Your task to perform on an android device: install app "TextNow: Call + Text Unlimited" Image 0: 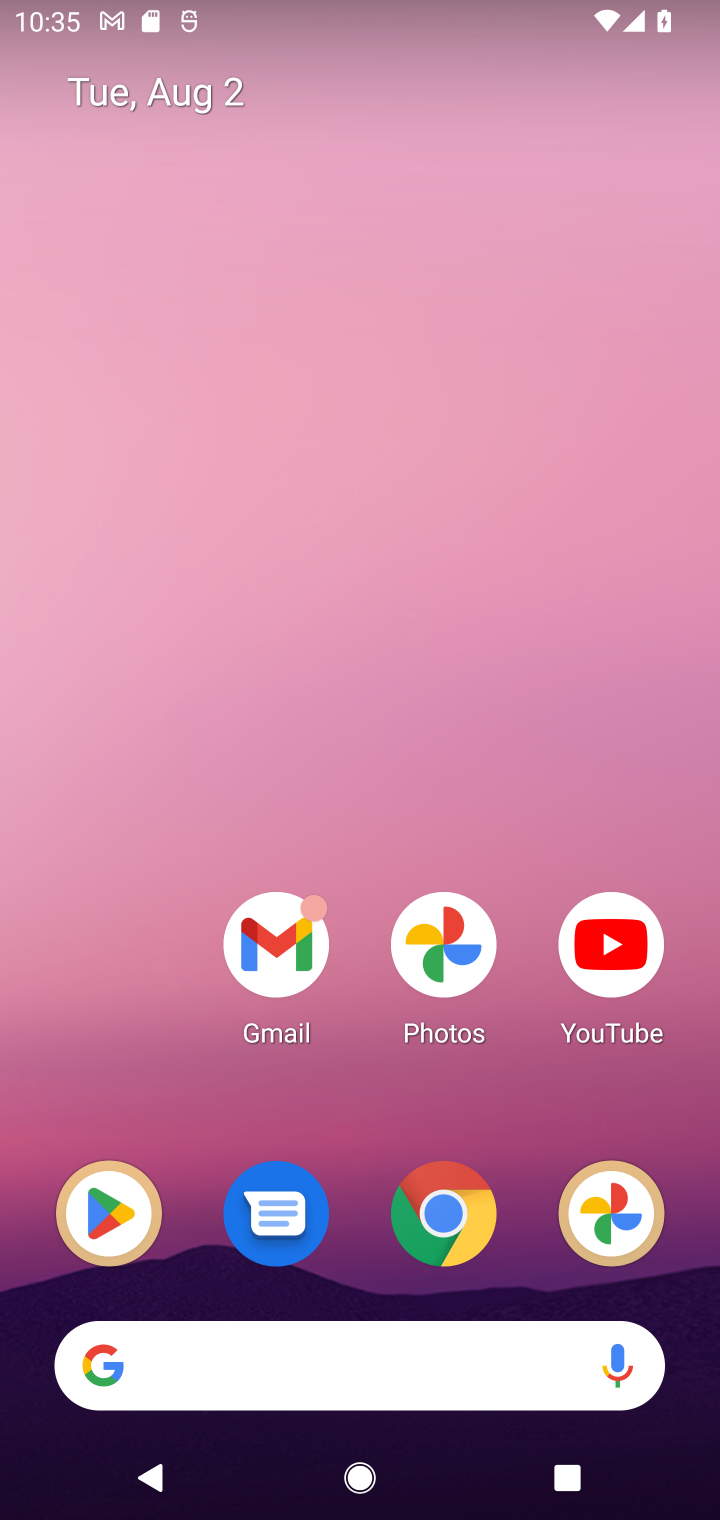
Step 0: click (117, 1190)
Your task to perform on an android device: install app "TextNow: Call + Text Unlimited" Image 1: 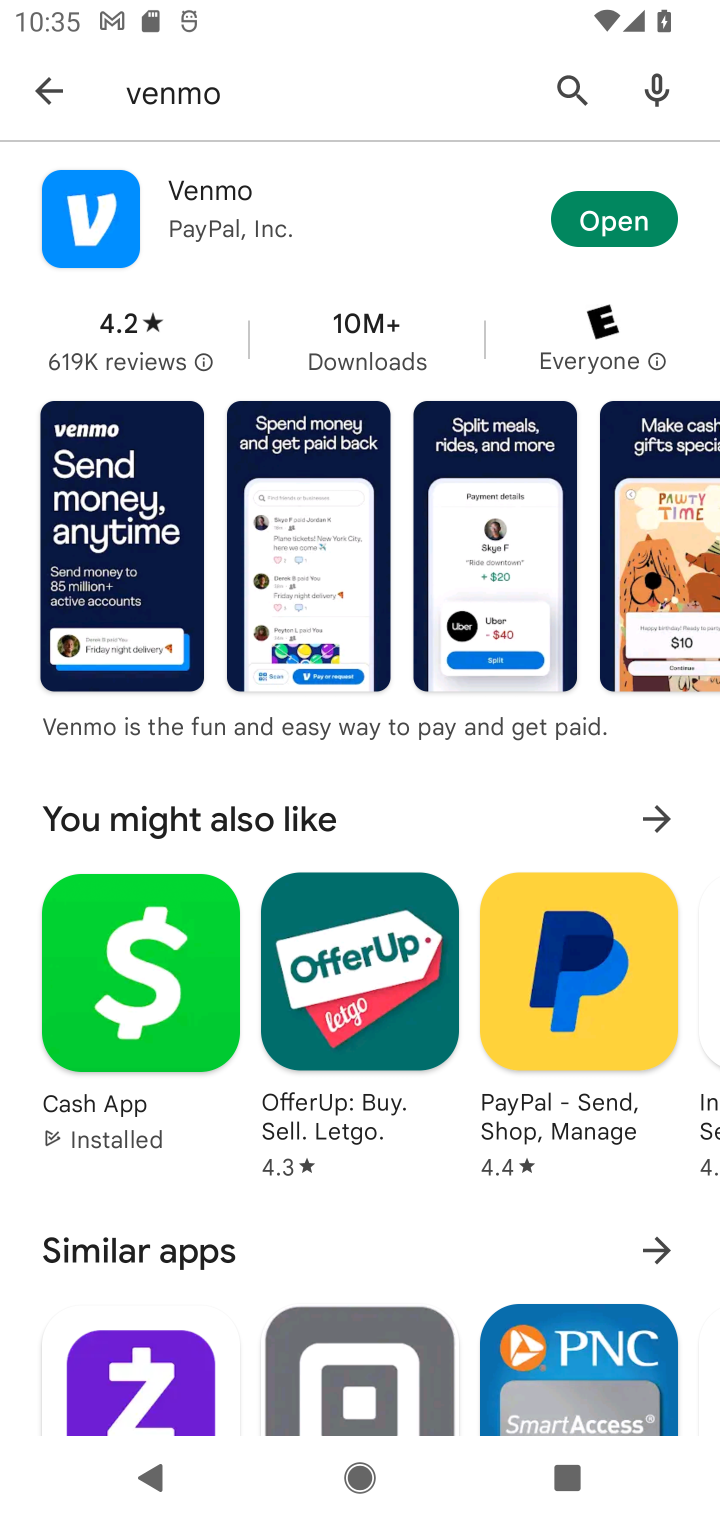
Step 1: click (44, 84)
Your task to perform on an android device: install app "TextNow: Call + Text Unlimited" Image 2: 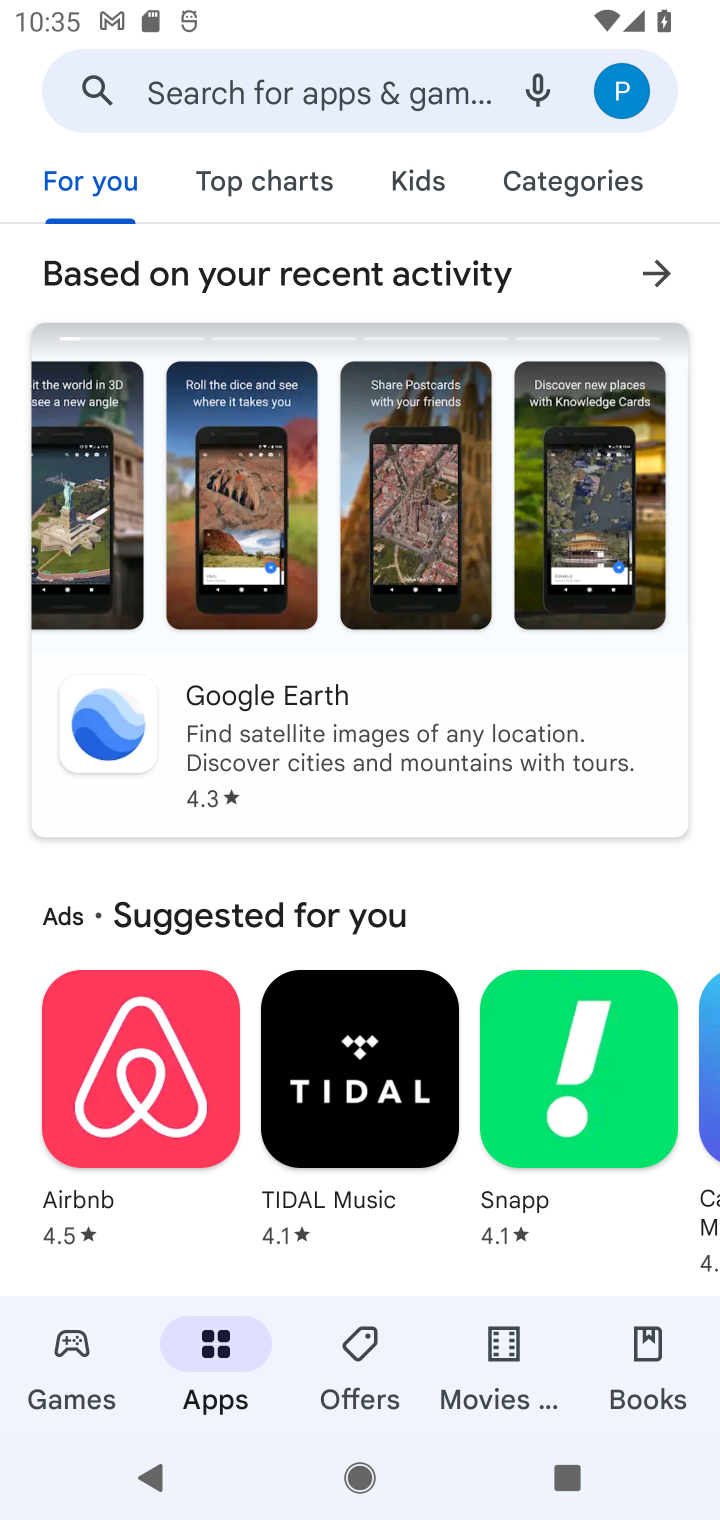
Step 2: click (211, 84)
Your task to perform on an android device: install app "TextNow: Call + Text Unlimited" Image 3: 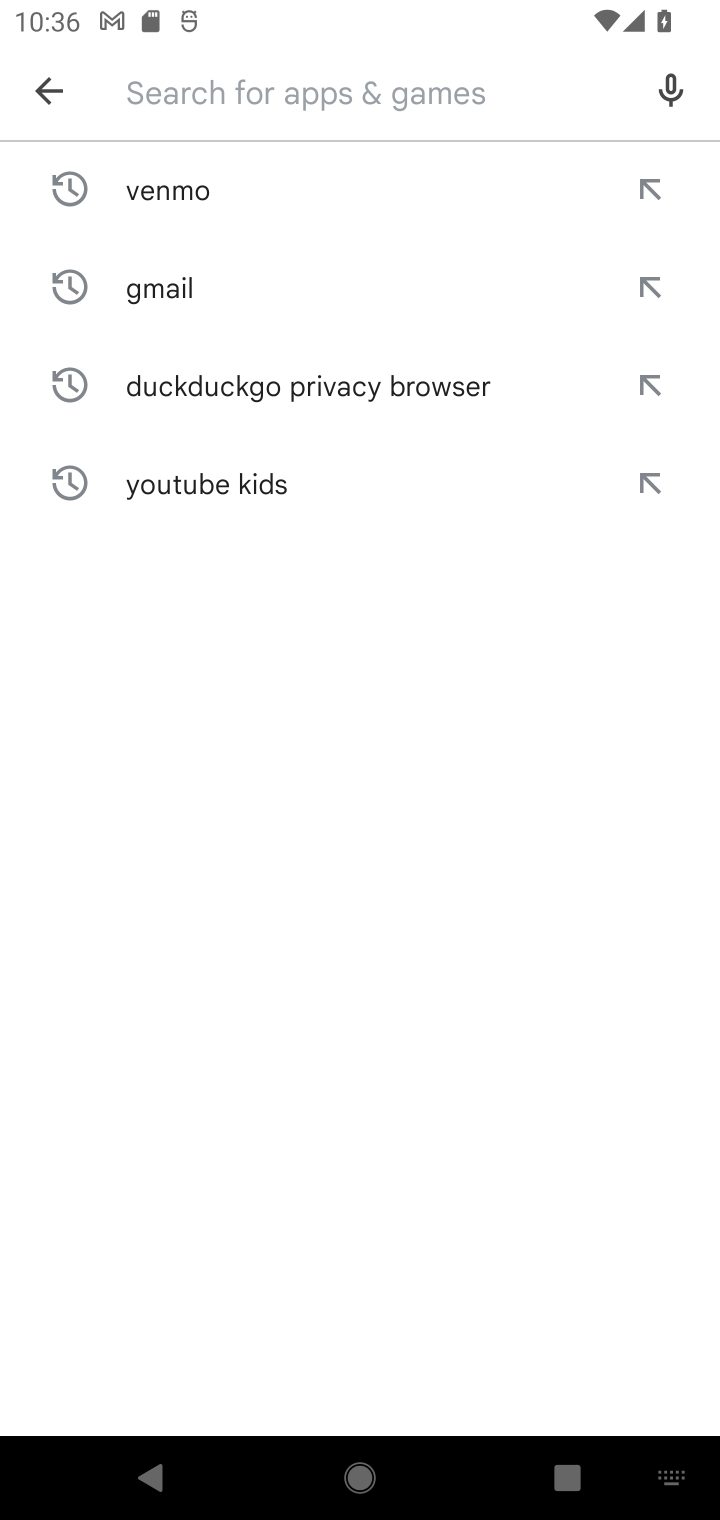
Step 3: type "TextNow: Call + Text Unlimited"
Your task to perform on an android device: install app "TextNow: Call + Text Unlimited" Image 4: 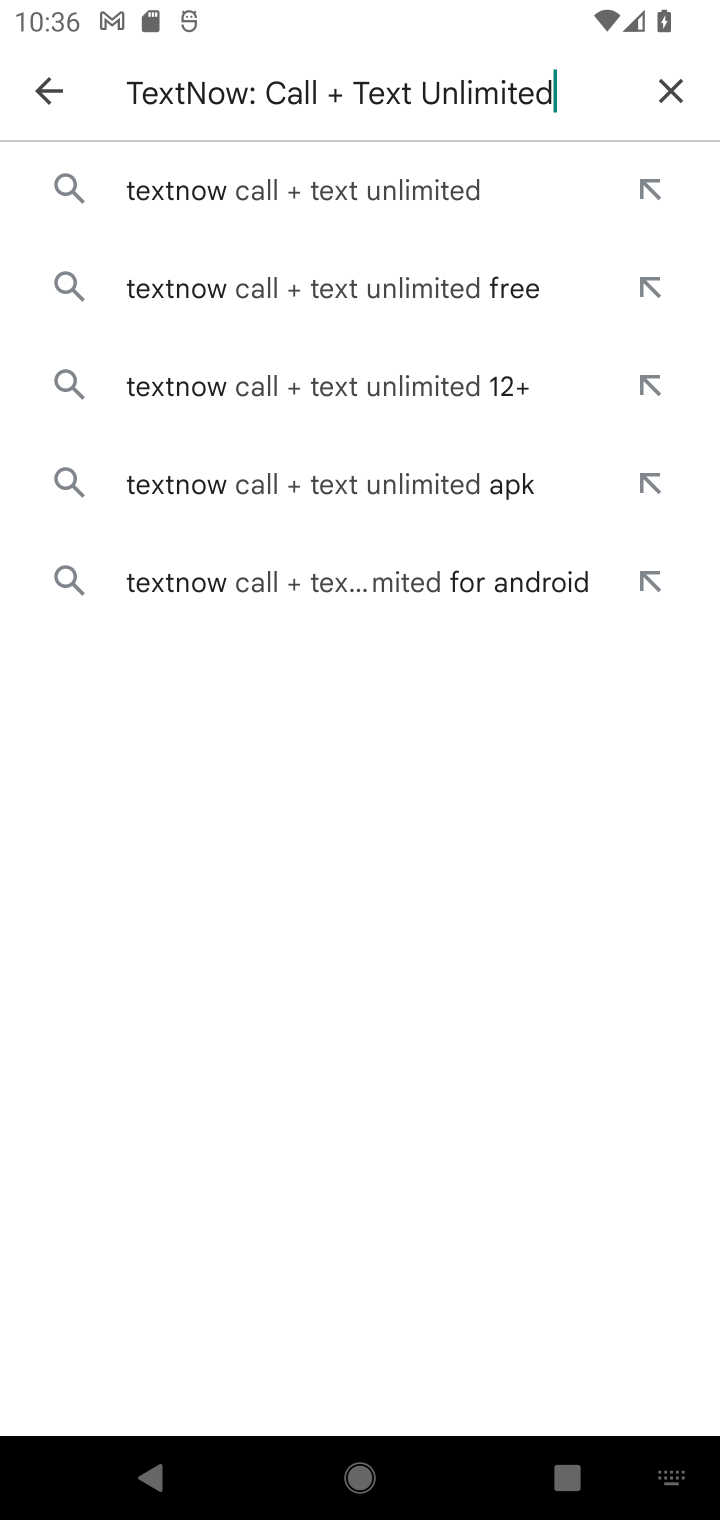
Step 4: click (259, 192)
Your task to perform on an android device: install app "TextNow: Call + Text Unlimited" Image 5: 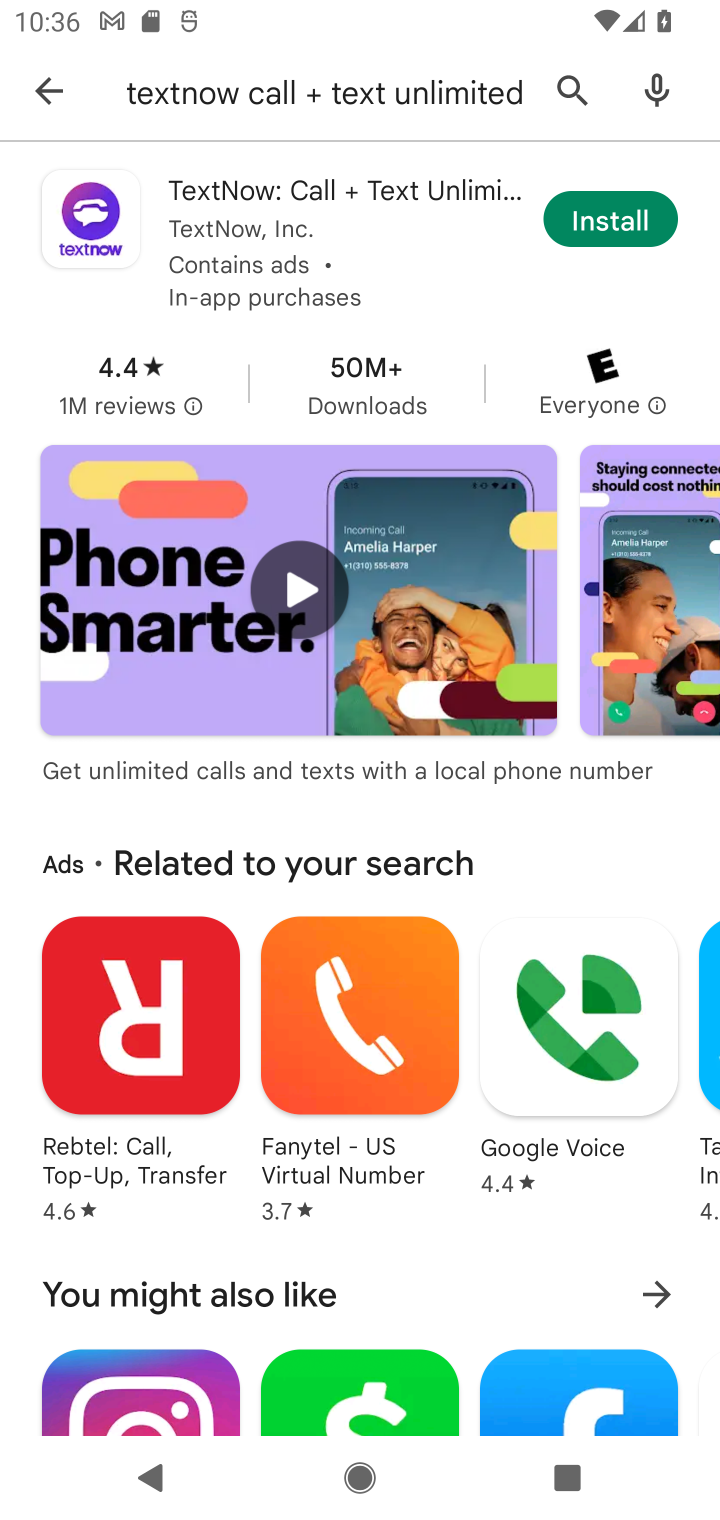
Step 5: click (603, 218)
Your task to perform on an android device: install app "TextNow: Call + Text Unlimited" Image 6: 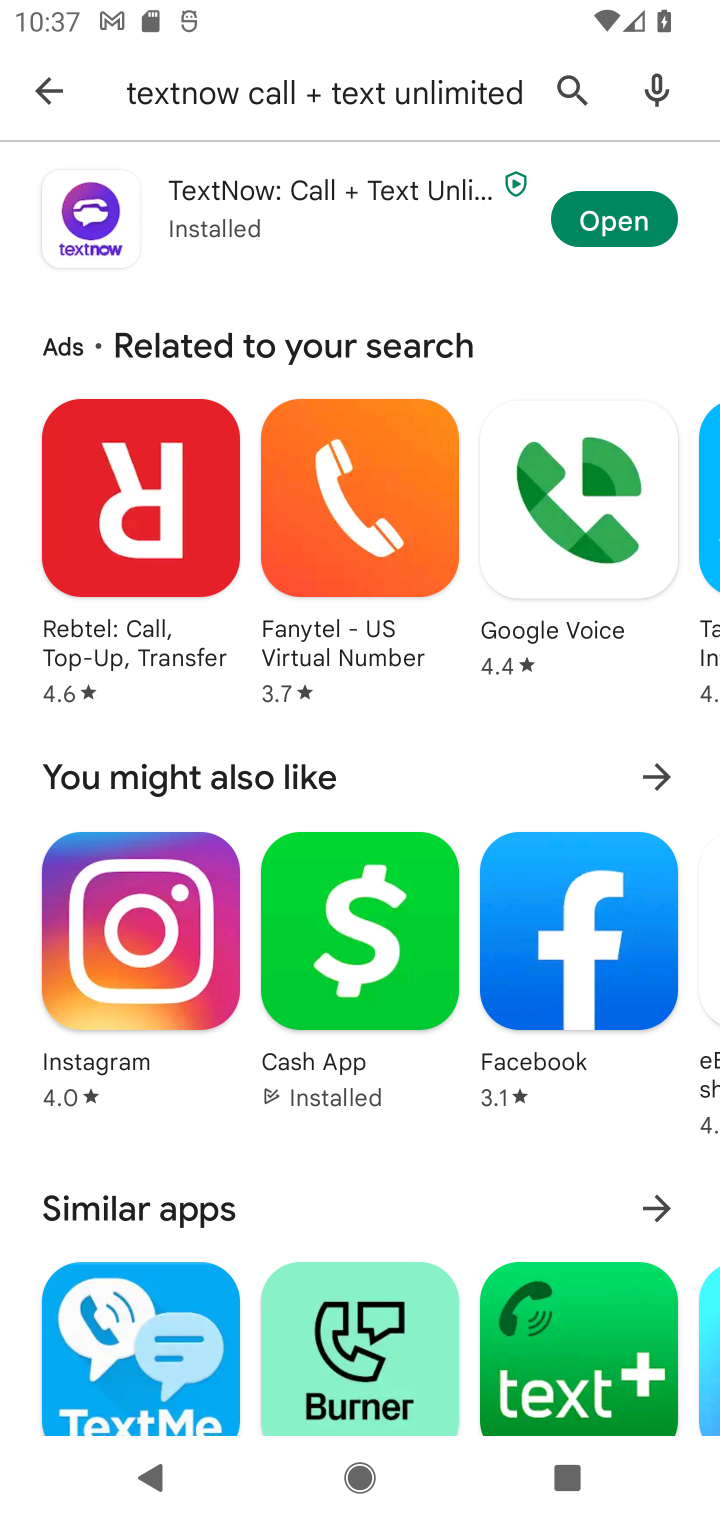
Step 6: click (591, 221)
Your task to perform on an android device: install app "TextNow: Call + Text Unlimited" Image 7: 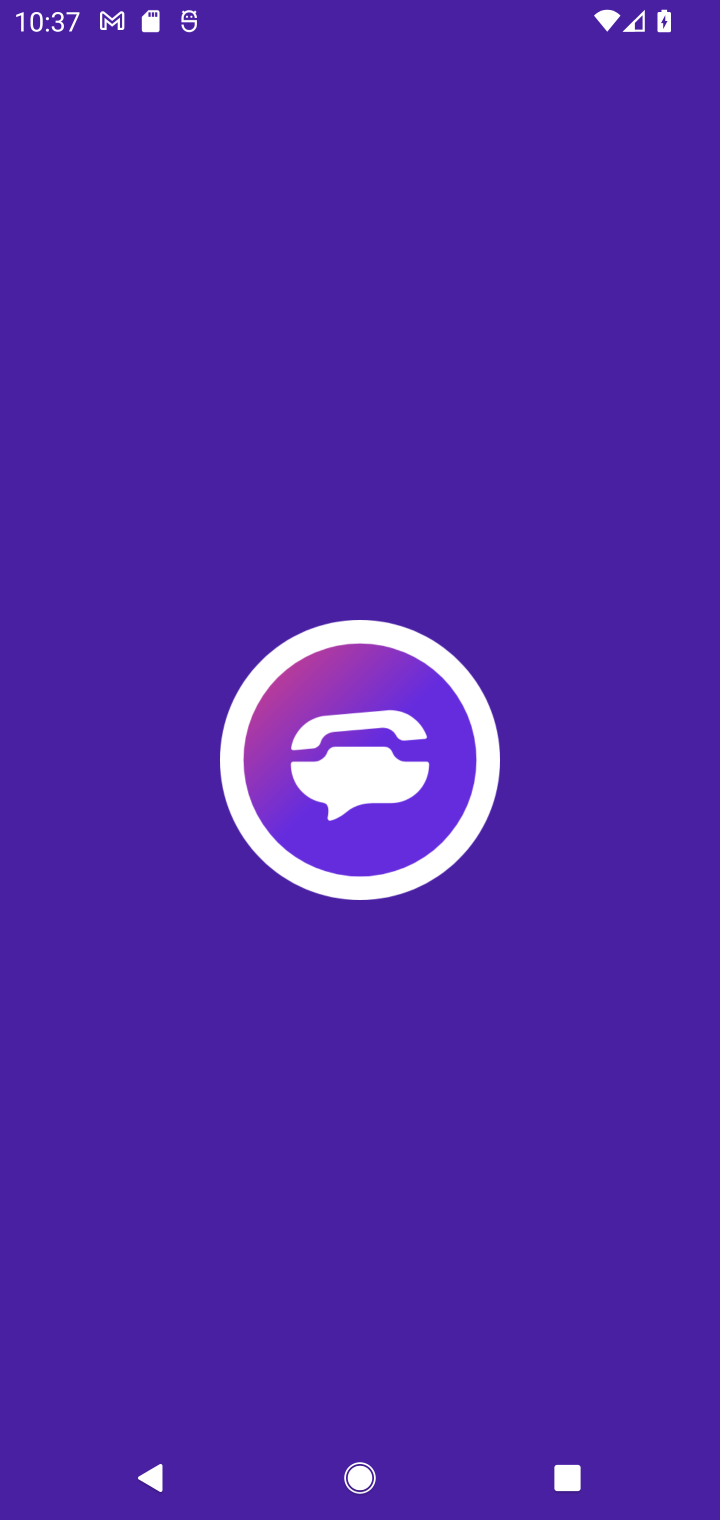
Step 7: task complete